Your task to perform on an android device: clear all cookies in the chrome app Image 0: 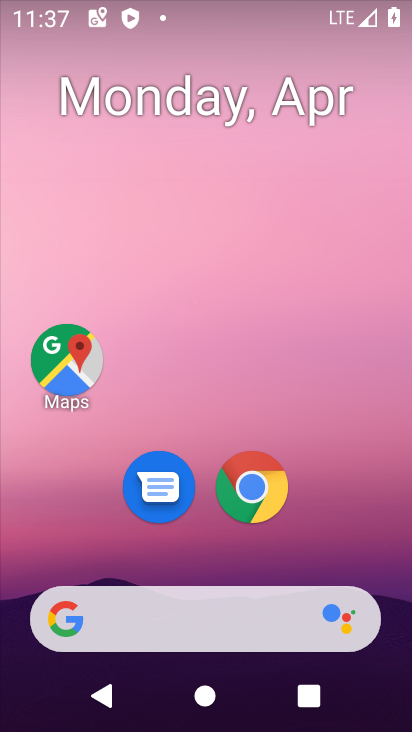
Step 0: drag from (392, 521) to (209, 85)
Your task to perform on an android device: clear all cookies in the chrome app Image 1: 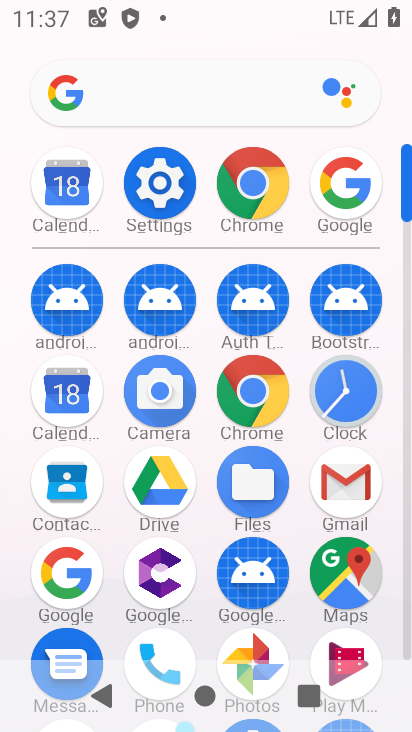
Step 1: click (252, 178)
Your task to perform on an android device: clear all cookies in the chrome app Image 2: 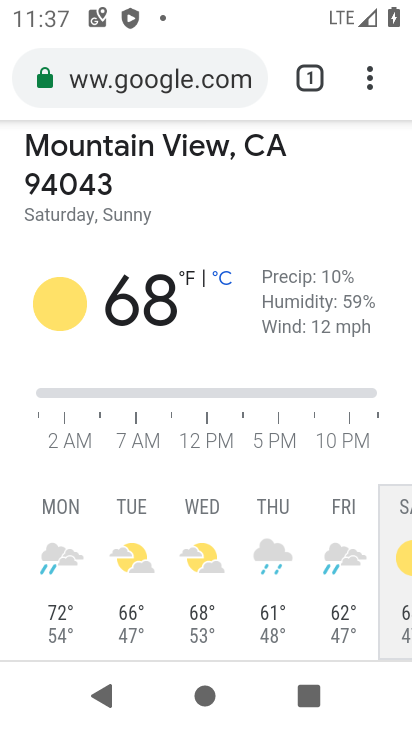
Step 2: drag from (365, 85) to (272, 504)
Your task to perform on an android device: clear all cookies in the chrome app Image 3: 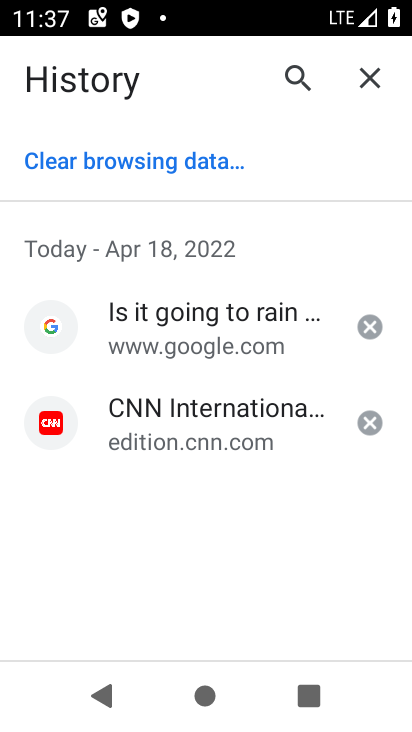
Step 3: click (192, 156)
Your task to perform on an android device: clear all cookies in the chrome app Image 4: 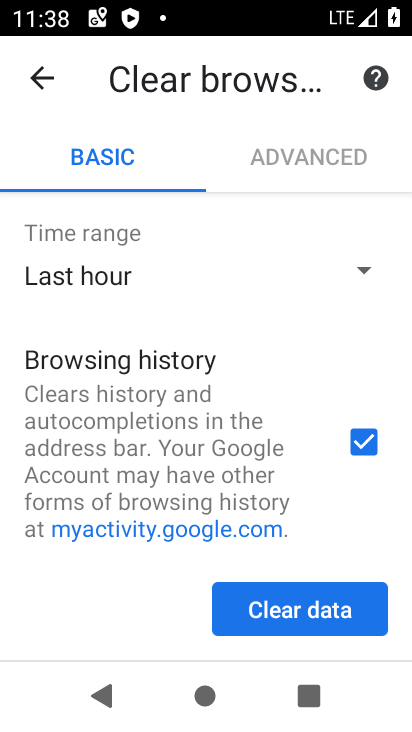
Step 4: click (356, 436)
Your task to perform on an android device: clear all cookies in the chrome app Image 5: 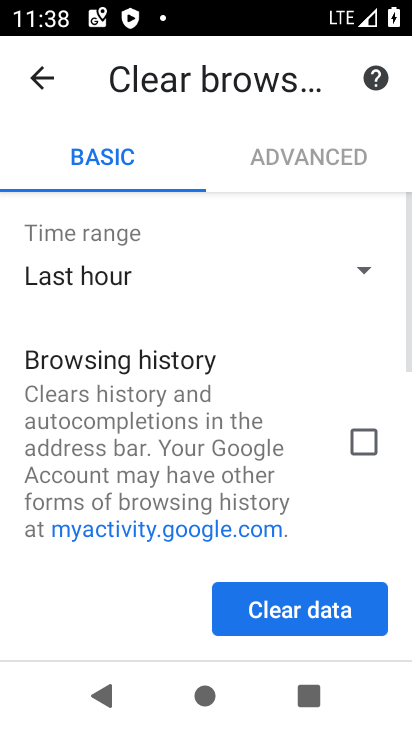
Step 5: drag from (108, 605) to (161, 260)
Your task to perform on an android device: clear all cookies in the chrome app Image 6: 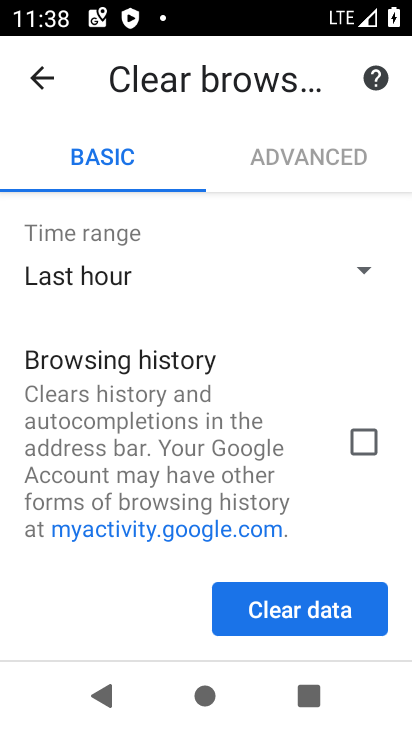
Step 6: drag from (208, 563) to (232, 218)
Your task to perform on an android device: clear all cookies in the chrome app Image 7: 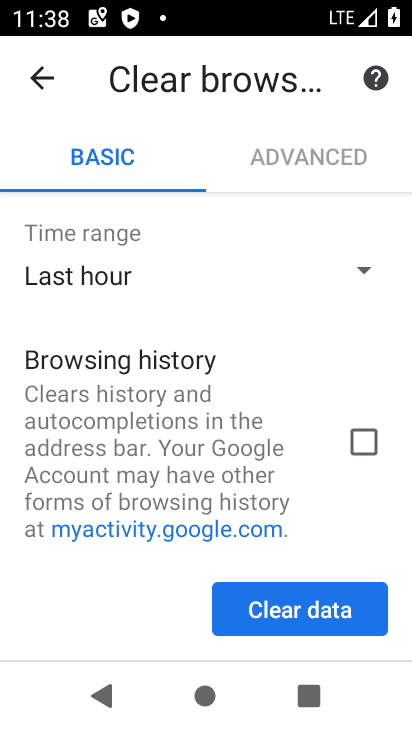
Step 7: drag from (320, 485) to (324, 57)
Your task to perform on an android device: clear all cookies in the chrome app Image 8: 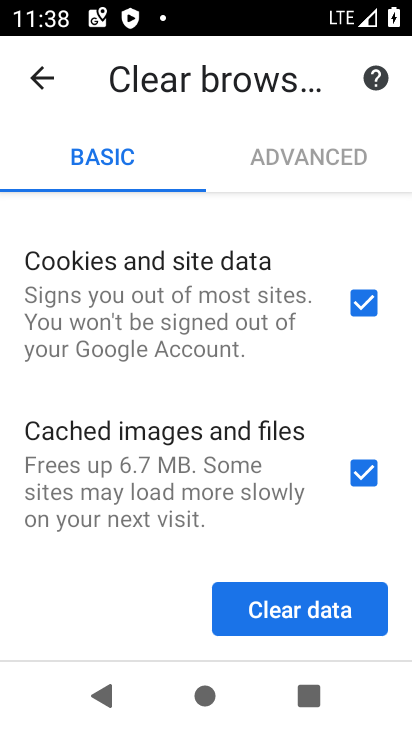
Step 8: click (370, 477)
Your task to perform on an android device: clear all cookies in the chrome app Image 9: 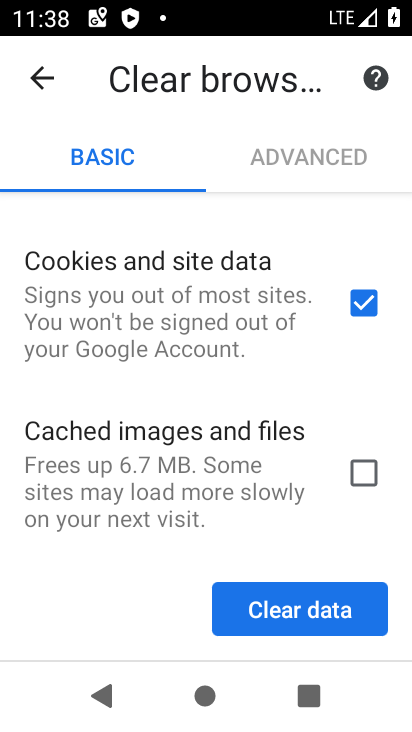
Step 9: click (293, 602)
Your task to perform on an android device: clear all cookies in the chrome app Image 10: 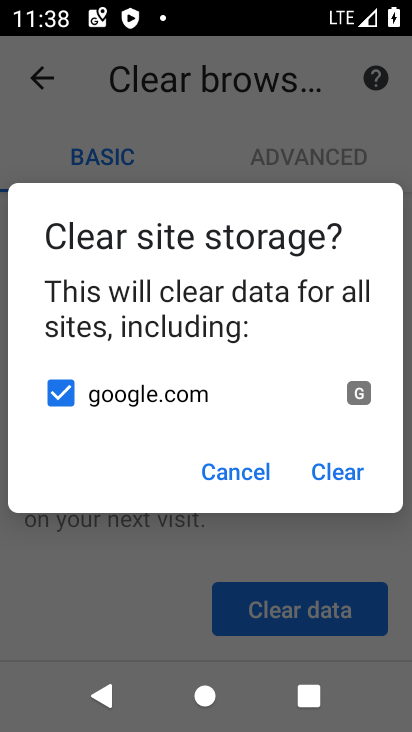
Step 10: click (351, 468)
Your task to perform on an android device: clear all cookies in the chrome app Image 11: 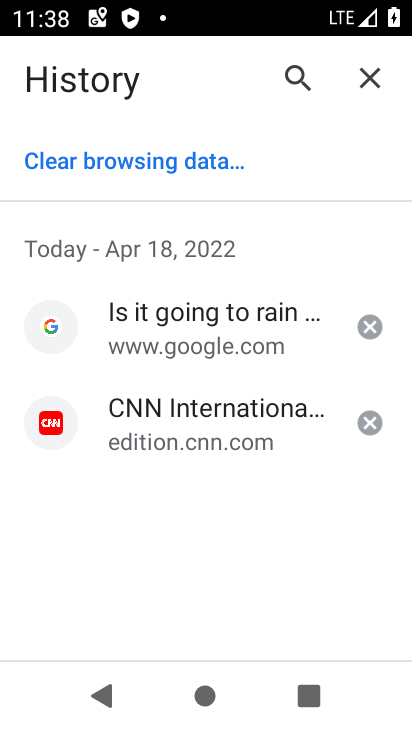
Step 11: task complete